Your task to perform on an android device: change notifications settings Image 0: 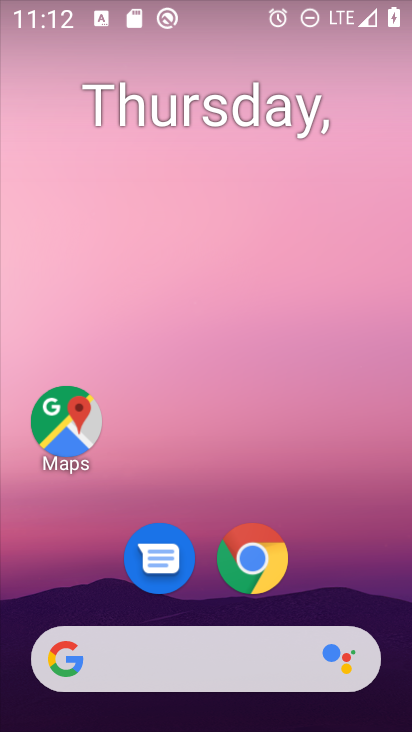
Step 0: drag from (396, 647) to (336, 124)
Your task to perform on an android device: change notifications settings Image 1: 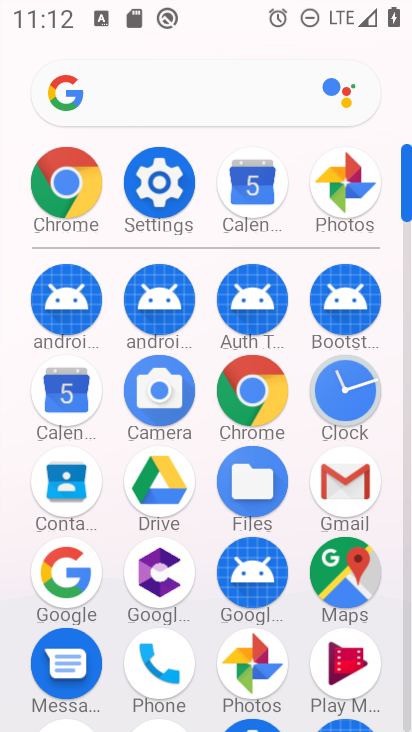
Step 1: click (407, 706)
Your task to perform on an android device: change notifications settings Image 2: 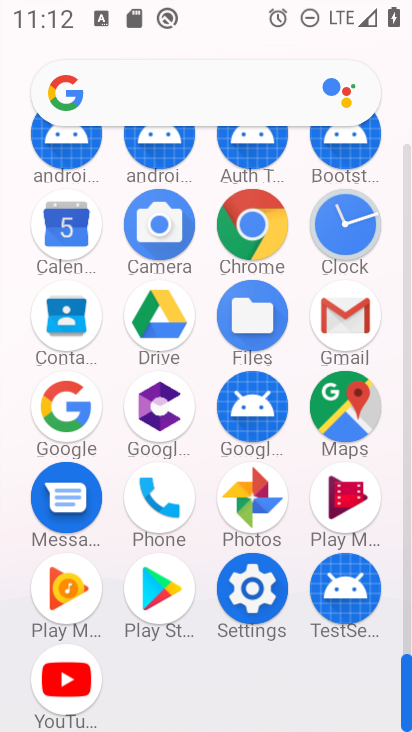
Step 2: click (249, 586)
Your task to perform on an android device: change notifications settings Image 3: 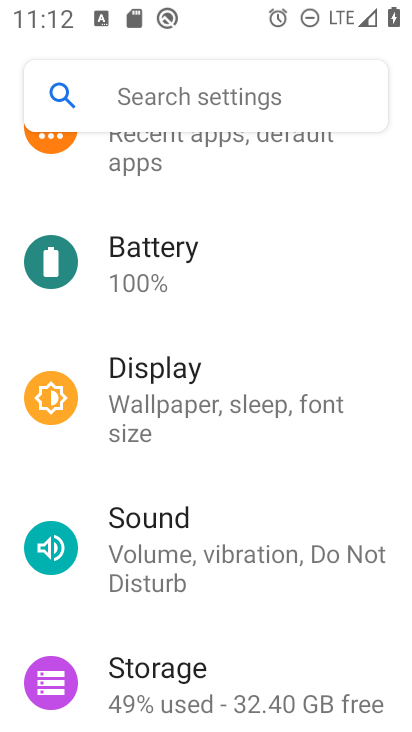
Step 3: drag from (343, 268) to (324, 539)
Your task to perform on an android device: change notifications settings Image 4: 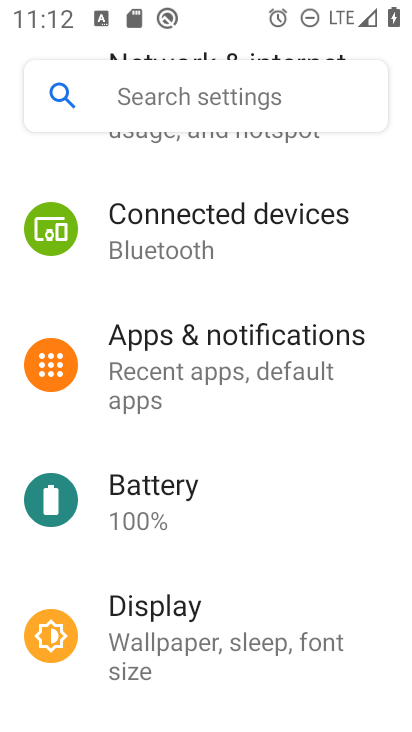
Step 4: click (157, 339)
Your task to perform on an android device: change notifications settings Image 5: 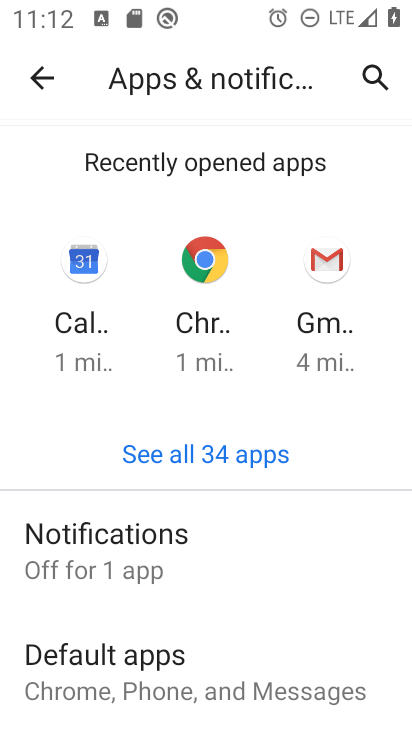
Step 5: click (95, 550)
Your task to perform on an android device: change notifications settings Image 6: 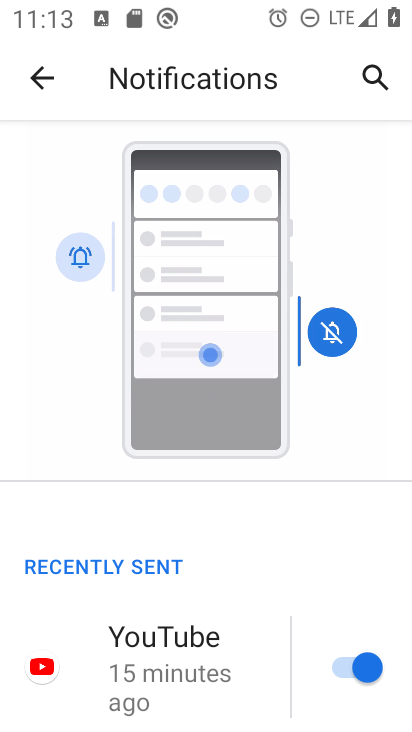
Step 6: drag from (293, 638) to (250, 157)
Your task to perform on an android device: change notifications settings Image 7: 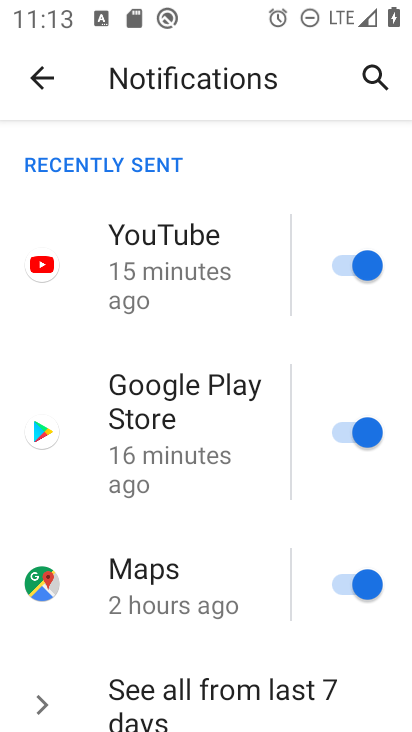
Step 7: drag from (280, 679) to (239, 201)
Your task to perform on an android device: change notifications settings Image 8: 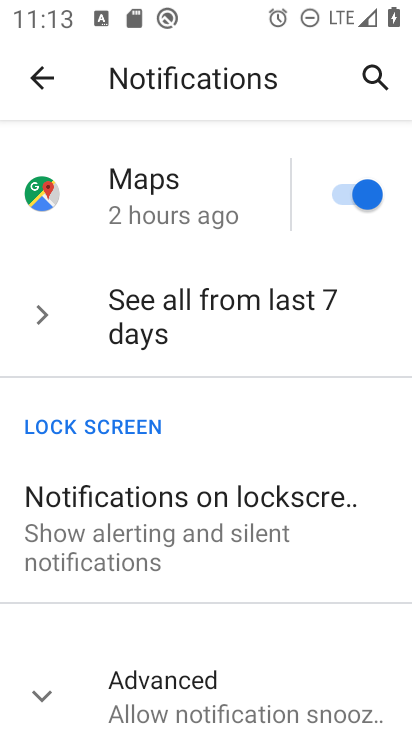
Step 8: drag from (200, 674) to (225, 278)
Your task to perform on an android device: change notifications settings Image 9: 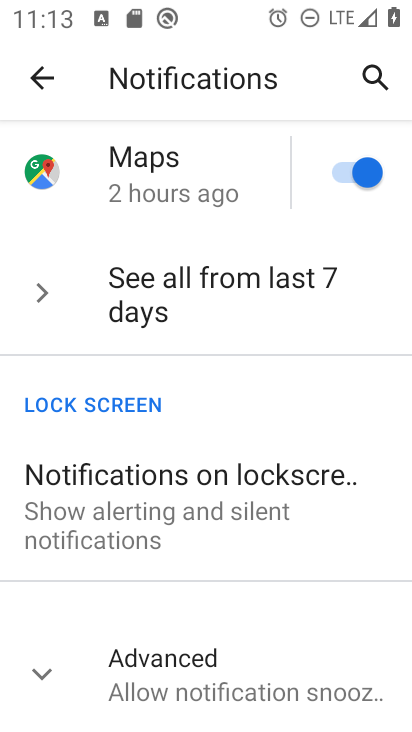
Step 9: click (30, 672)
Your task to perform on an android device: change notifications settings Image 10: 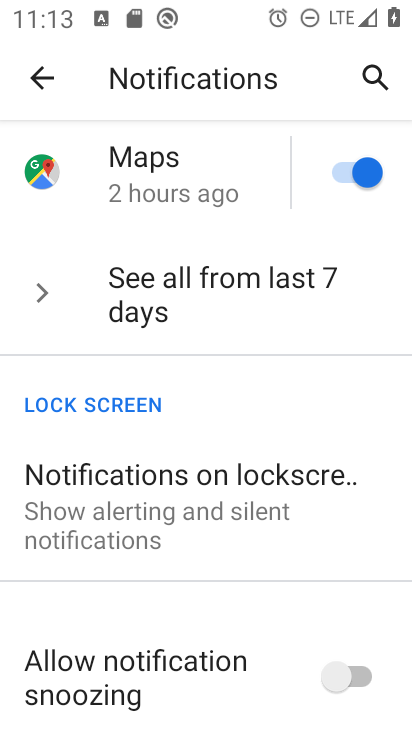
Step 10: drag from (275, 669) to (252, 223)
Your task to perform on an android device: change notifications settings Image 11: 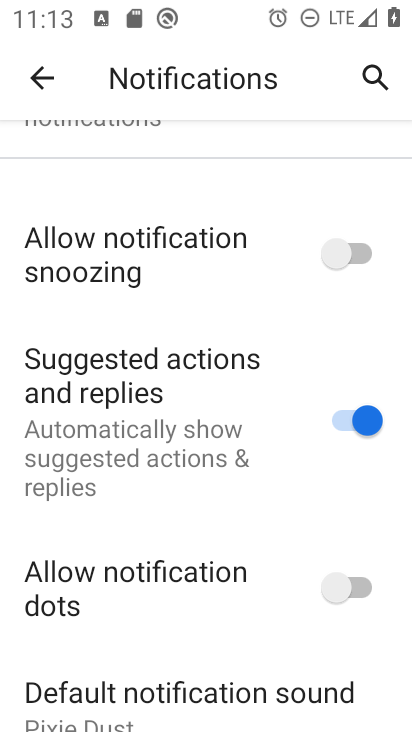
Step 11: drag from (261, 658) to (257, 246)
Your task to perform on an android device: change notifications settings Image 12: 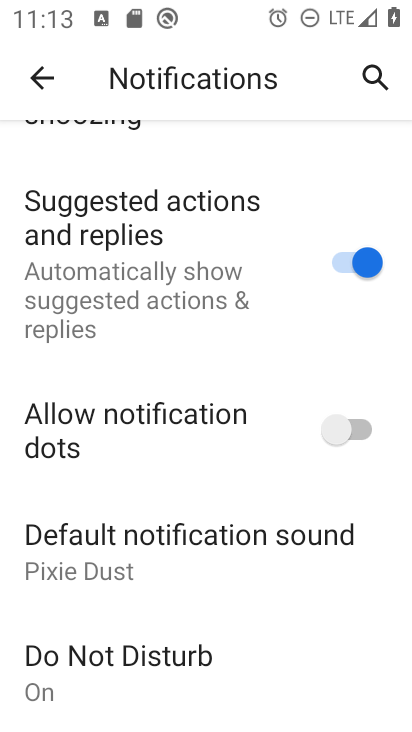
Step 12: drag from (251, 652) to (250, 201)
Your task to perform on an android device: change notifications settings Image 13: 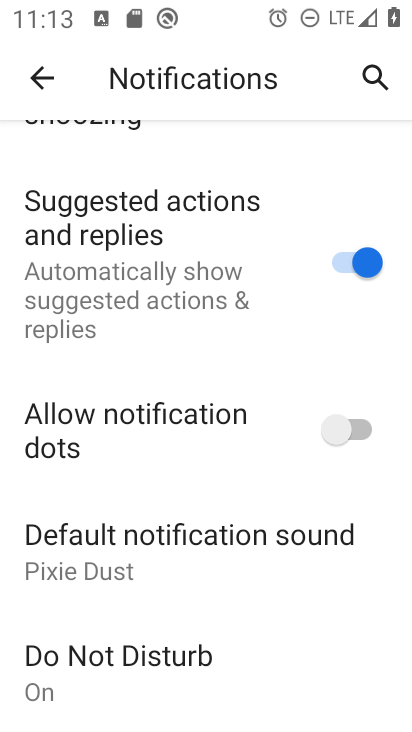
Step 13: drag from (229, 633) to (244, 245)
Your task to perform on an android device: change notifications settings Image 14: 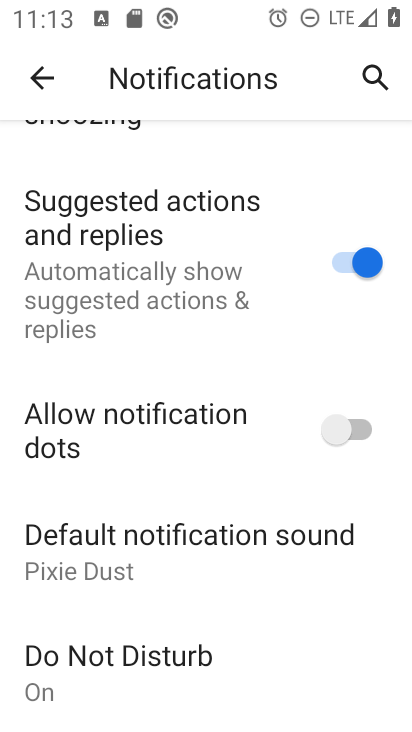
Step 14: click (363, 425)
Your task to perform on an android device: change notifications settings Image 15: 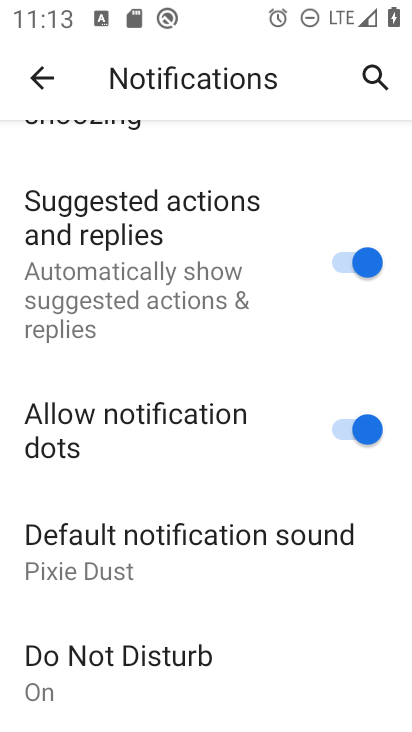
Step 15: click (339, 260)
Your task to perform on an android device: change notifications settings Image 16: 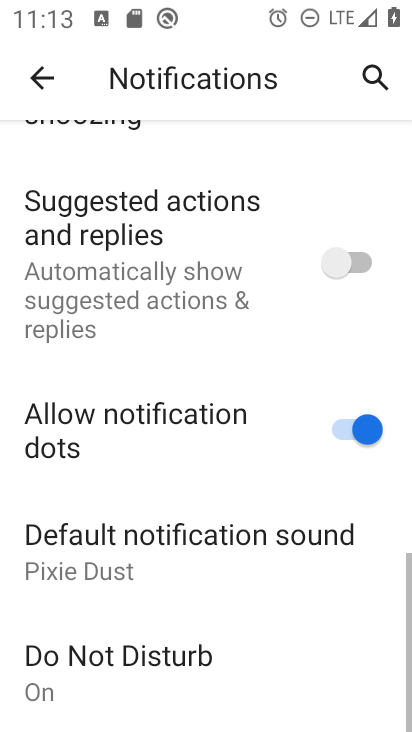
Step 16: drag from (275, 287) to (247, 597)
Your task to perform on an android device: change notifications settings Image 17: 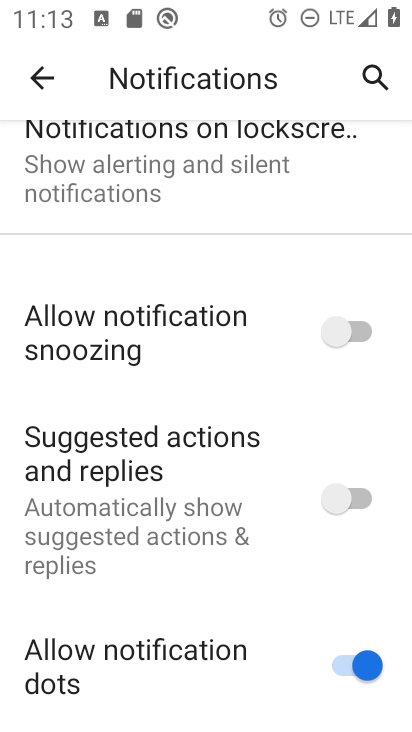
Step 17: click (359, 321)
Your task to perform on an android device: change notifications settings Image 18: 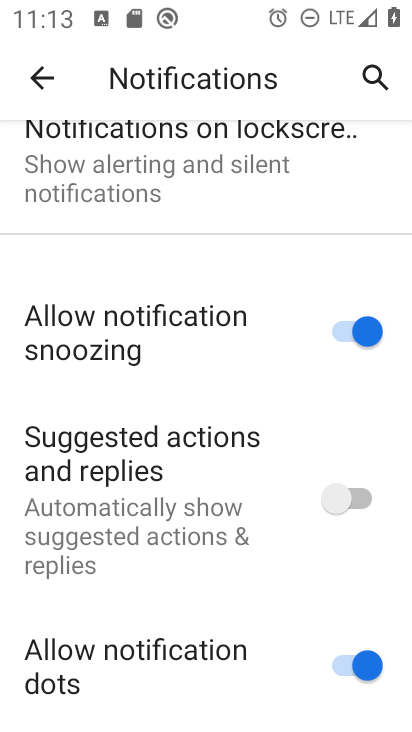
Step 18: task complete